Your task to perform on an android device: Go to battery settings Image 0: 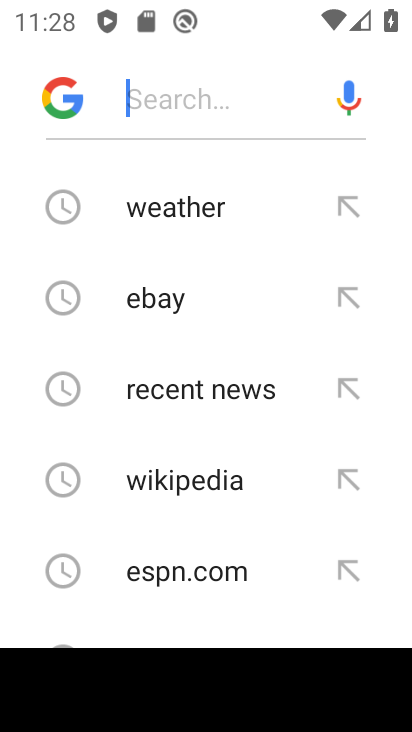
Step 0: press home button
Your task to perform on an android device: Go to battery settings Image 1: 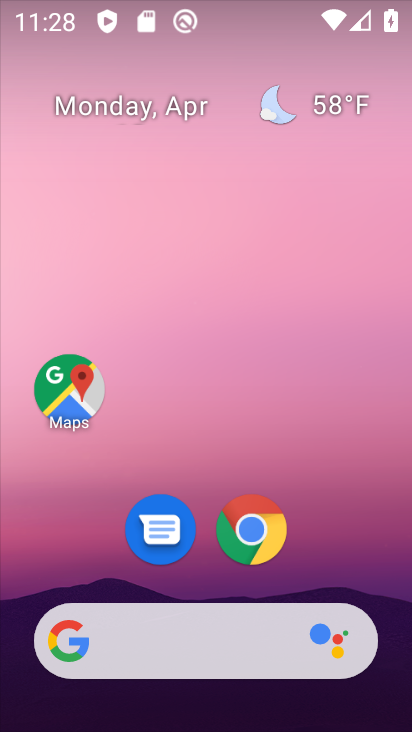
Step 1: drag from (342, 583) to (258, 22)
Your task to perform on an android device: Go to battery settings Image 2: 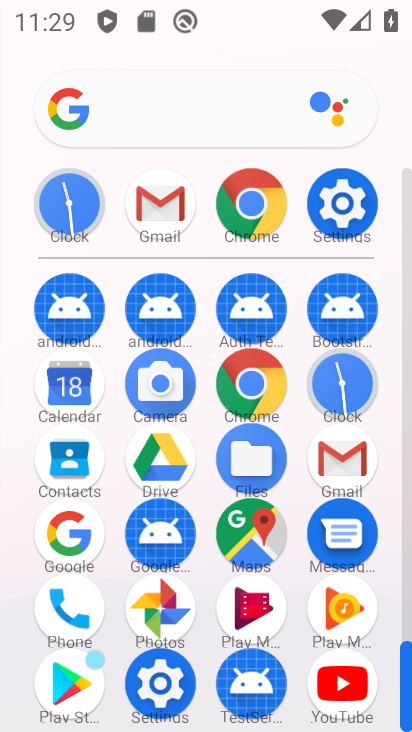
Step 2: click (341, 204)
Your task to perform on an android device: Go to battery settings Image 3: 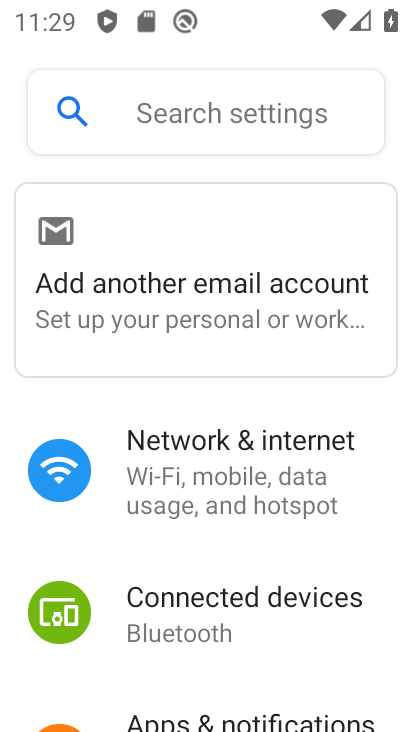
Step 3: drag from (176, 653) to (233, 162)
Your task to perform on an android device: Go to battery settings Image 4: 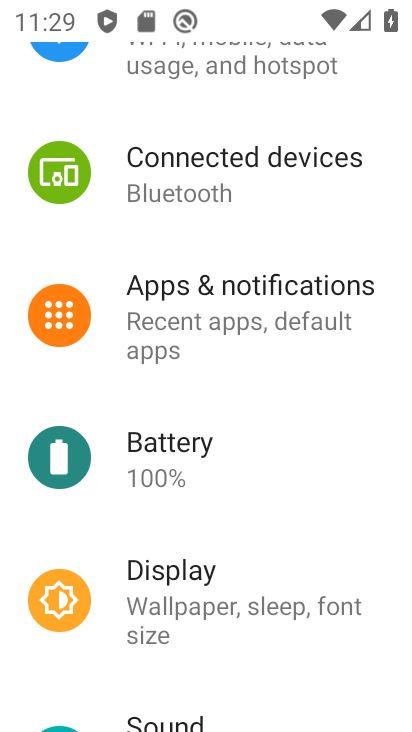
Step 4: click (178, 447)
Your task to perform on an android device: Go to battery settings Image 5: 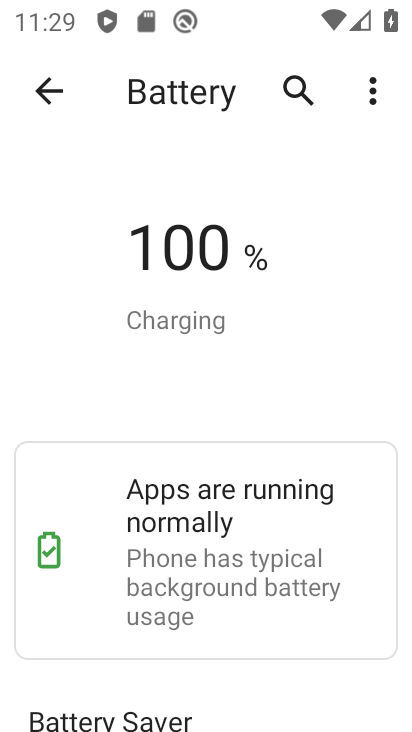
Step 5: task complete